Your task to perform on an android device: Go to sound settings Image 0: 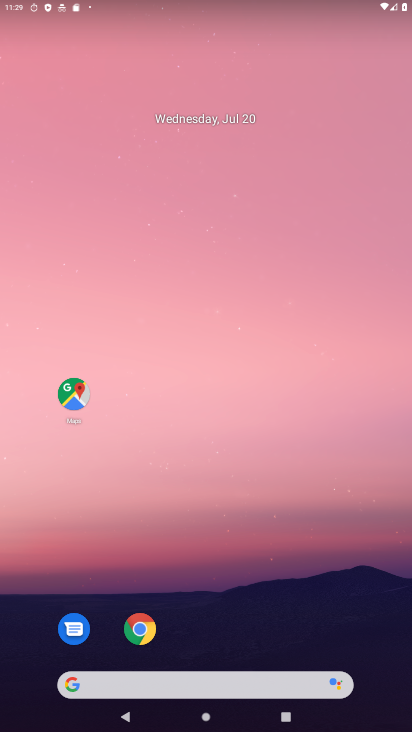
Step 0: drag from (305, 689) to (377, 82)
Your task to perform on an android device: Go to sound settings Image 1: 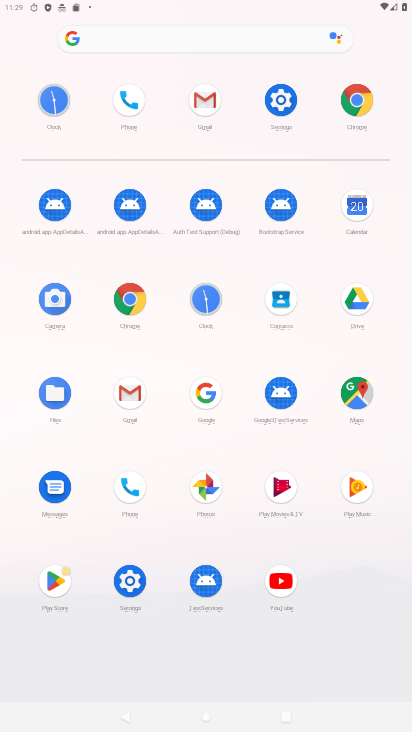
Step 1: click (280, 98)
Your task to perform on an android device: Go to sound settings Image 2: 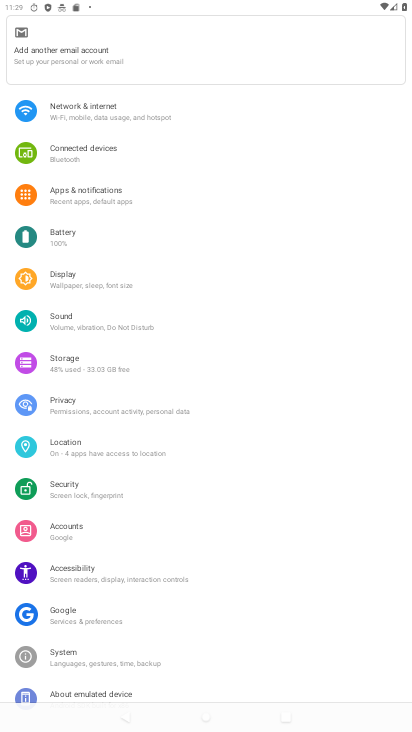
Step 2: click (110, 328)
Your task to perform on an android device: Go to sound settings Image 3: 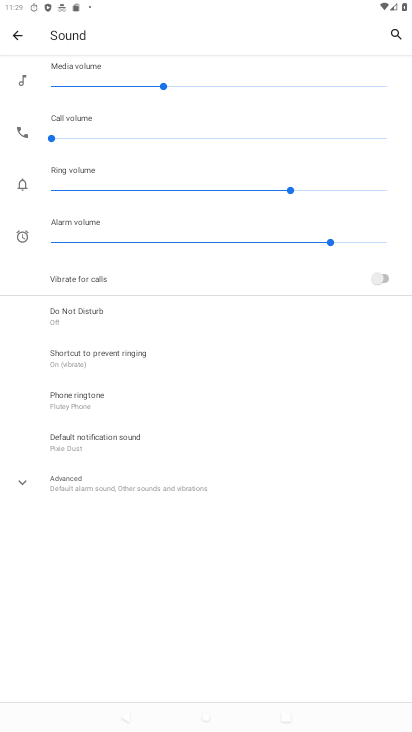
Step 3: task complete